Your task to perform on an android device: open a bookmark in the chrome app Image 0: 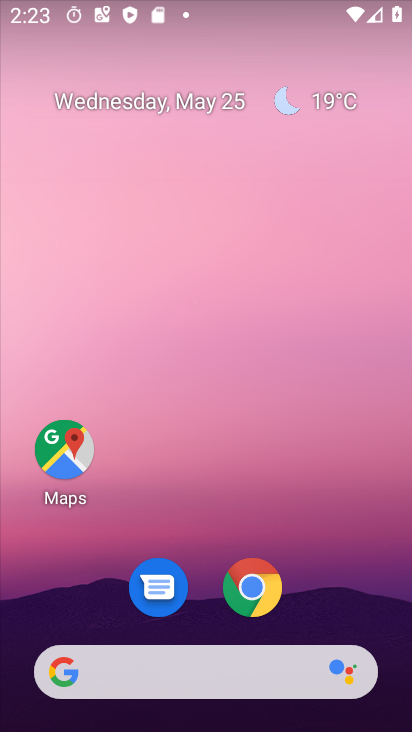
Step 0: click (256, 589)
Your task to perform on an android device: open a bookmark in the chrome app Image 1: 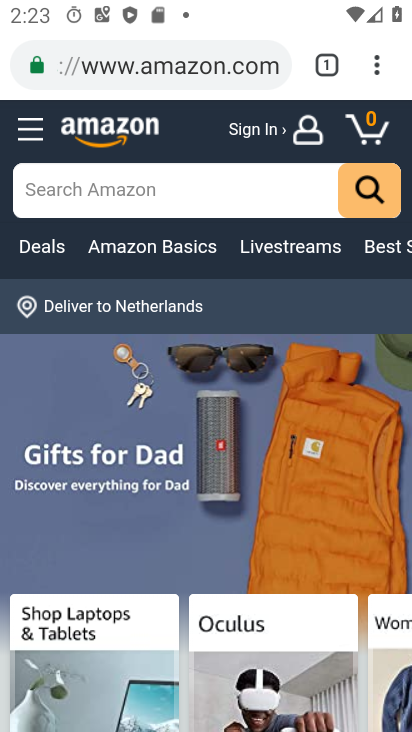
Step 1: click (369, 69)
Your task to perform on an android device: open a bookmark in the chrome app Image 2: 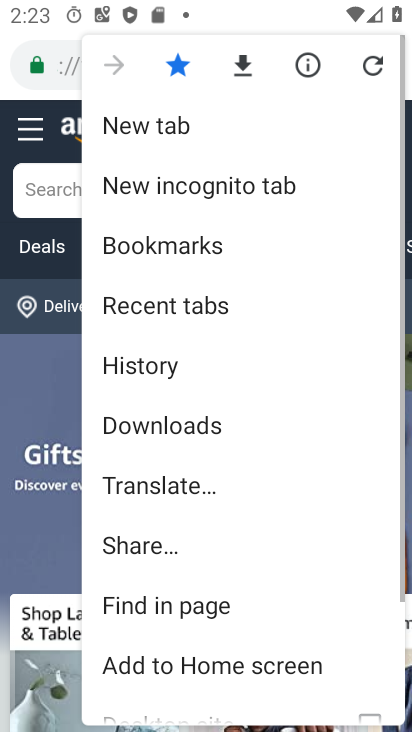
Step 2: drag from (280, 556) to (269, 223)
Your task to perform on an android device: open a bookmark in the chrome app Image 3: 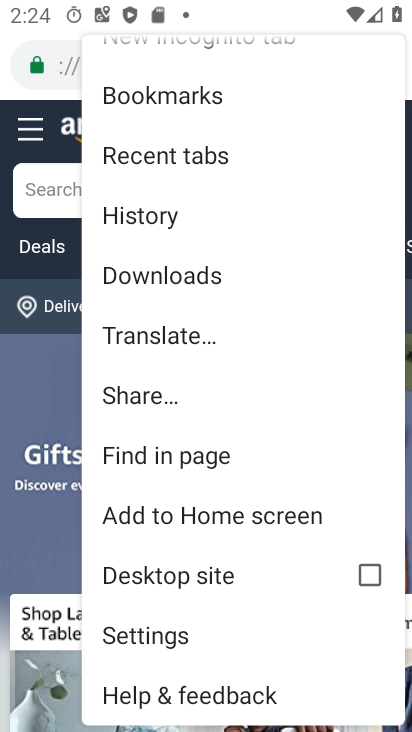
Step 3: click (218, 106)
Your task to perform on an android device: open a bookmark in the chrome app Image 4: 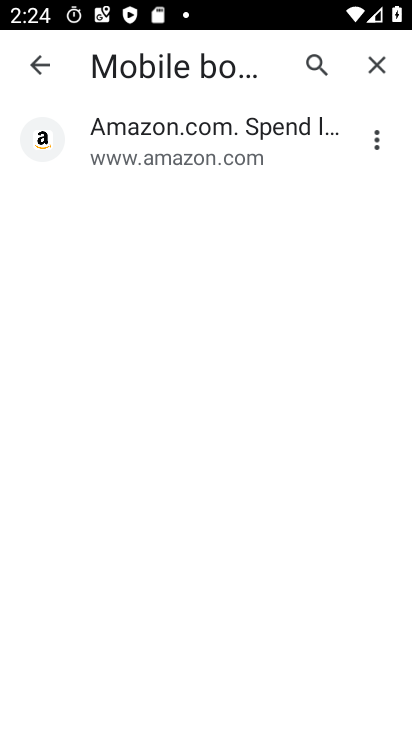
Step 4: click (180, 133)
Your task to perform on an android device: open a bookmark in the chrome app Image 5: 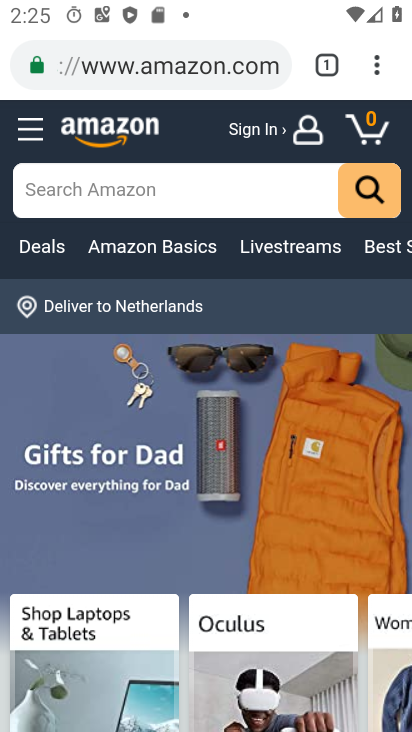
Step 5: task complete